Your task to perform on an android device: What's the weather going to be this weekend? Image 0: 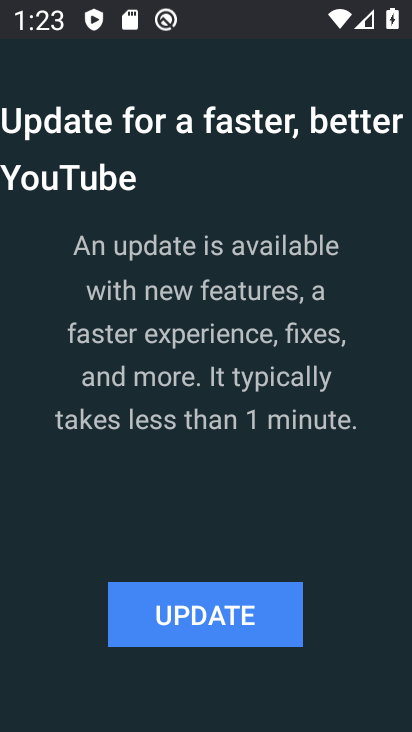
Step 0: press home button
Your task to perform on an android device: What's the weather going to be this weekend? Image 1: 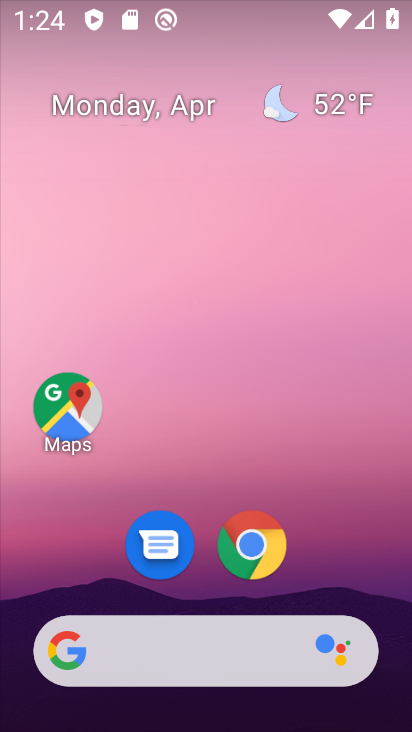
Step 1: click (281, 106)
Your task to perform on an android device: What's the weather going to be this weekend? Image 2: 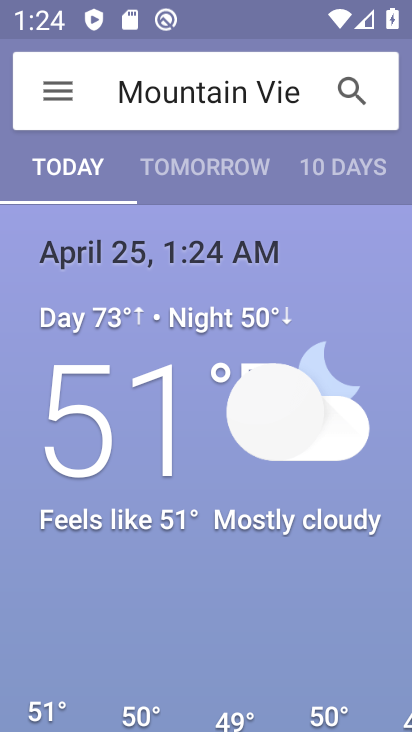
Step 2: click (325, 162)
Your task to perform on an android device: What's the weather going to be this weekend? Image 3: 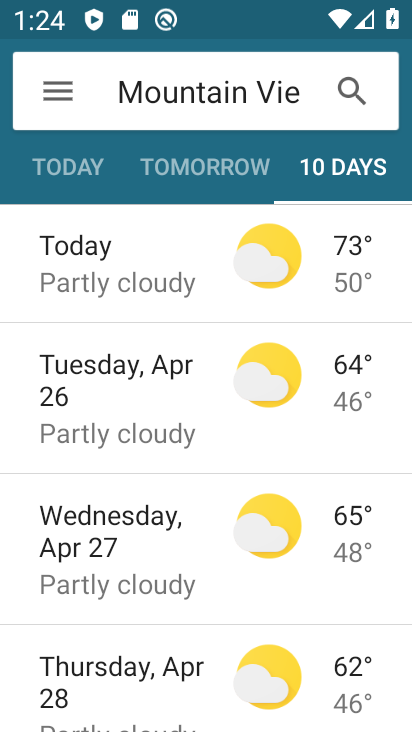
Step 3: drag from (124, 694) to (134, 216)
Your task to perform on an android device: What's the weather going to be this weekend? Image 4: 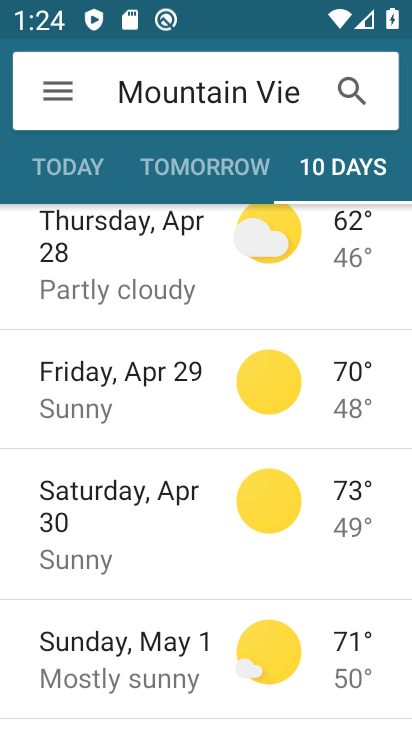
Step 4: click (125, 489)
Your task to perform on an android device: What's the weather going to be this weekend? Image 5: 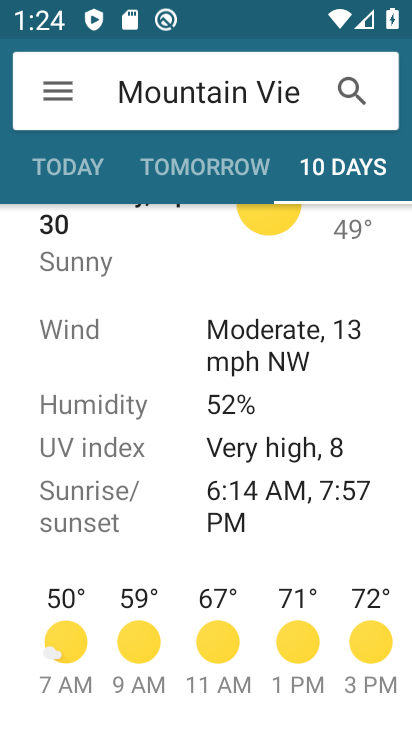
Step 5: task complete